Your task to perform on an android device: turn off sleep mode Image 0: 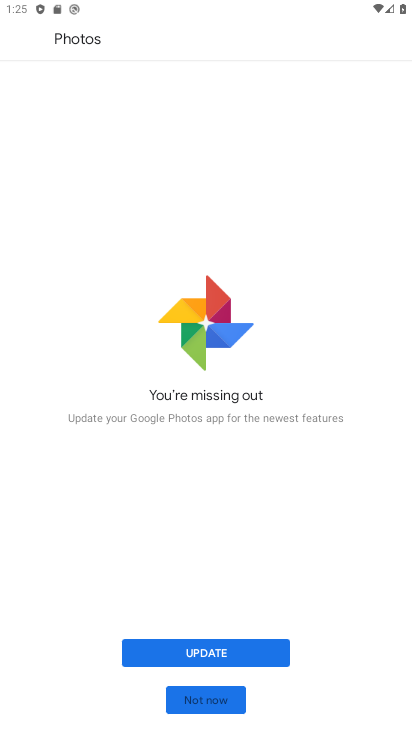
Step 0: click (210, 702)
Your task to perform on an android device: turn off sleep mode Image 1: 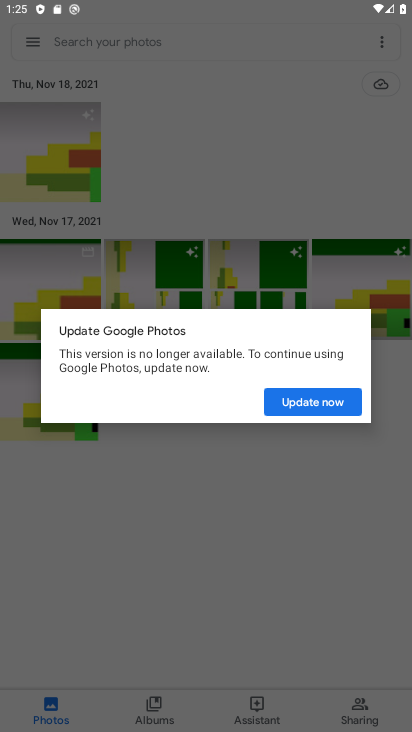
Step 1: task complete